Your task to perform on an android device: Open Android settings Image 0: 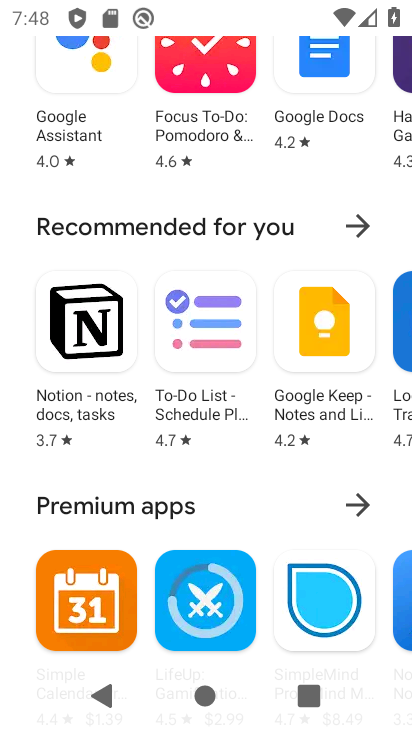
Step 0: press home button
Your task to perform on an android device: Open Android settings Image 1: 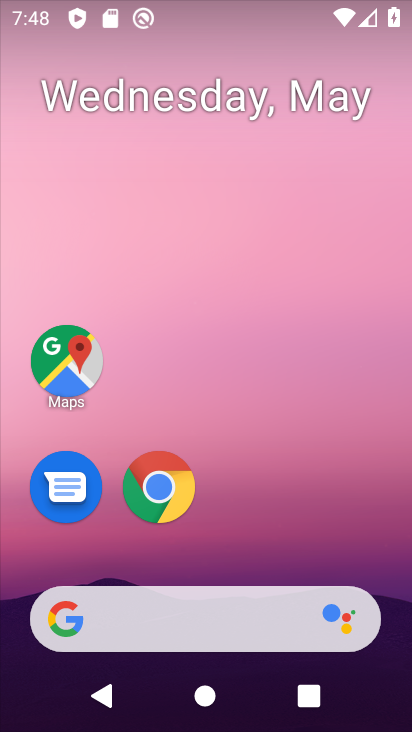
Step 1: drag from (237, 525) to (267, 43)
Your task to perform on an android device: Open Android settings Image 2: 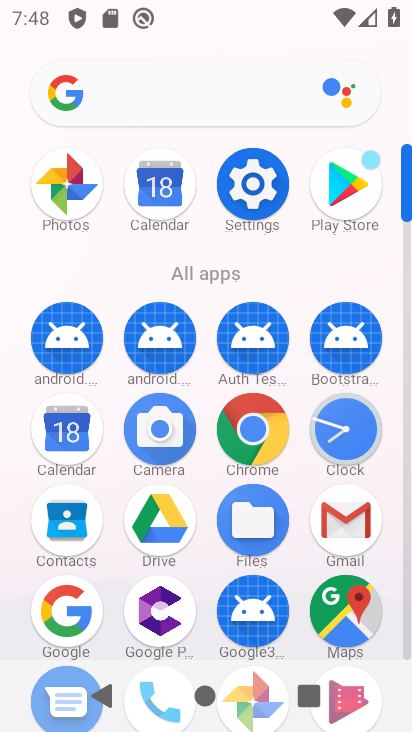
Step 2: click (252, 186)
Your task to perform on an android device: Open Android settings Image 3: 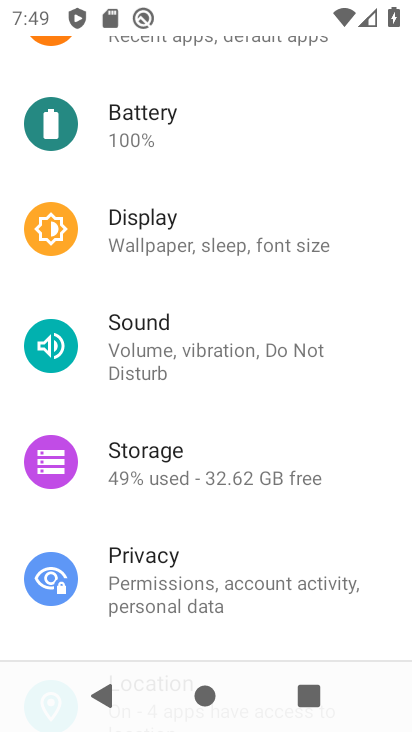
Step 3: drag from (197, 549) to (220, 90)
Your task to perform on an android device: Open Android settings Image 4: 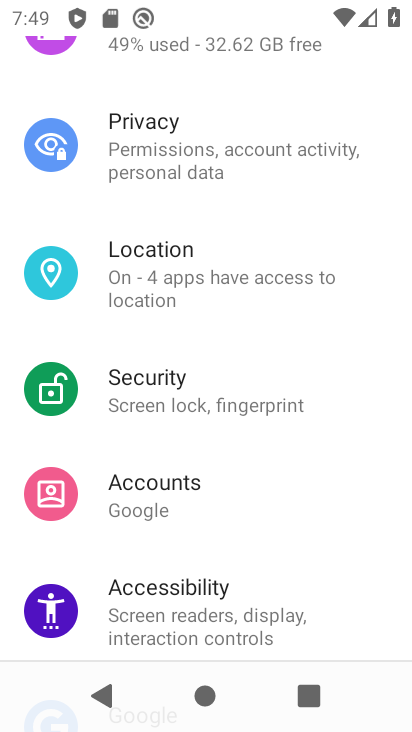
Step 4: drag from (186, 554) to (244, 73)
Your task to perform on an android device: Open Android settings Image 5: 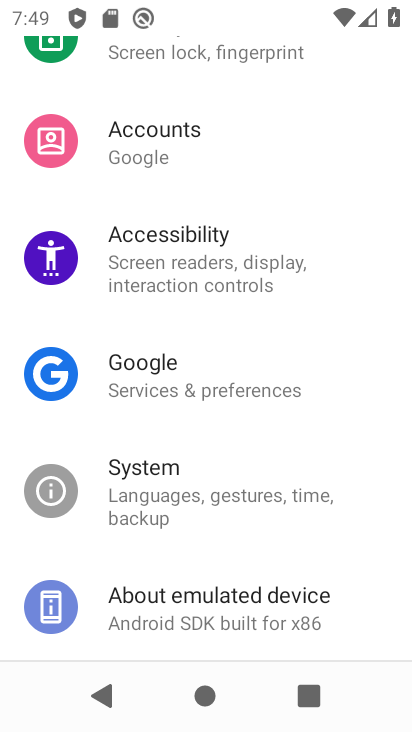
Step 5: click (183, 601)
Your task to perform on an android device: Open Android settings Image 6: 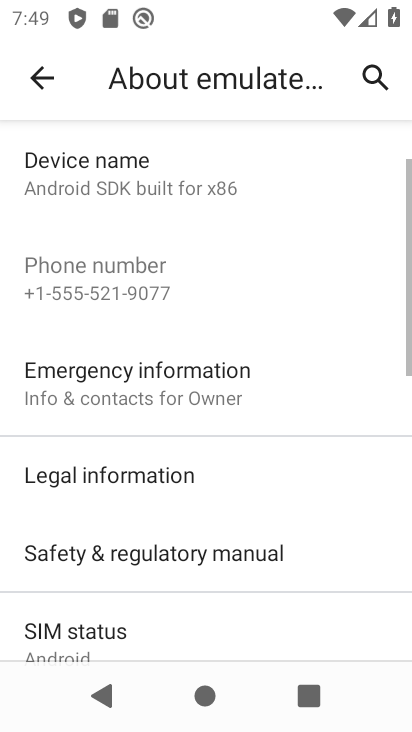
Step 6: task complete